Your task to perform on an android device: change text size in settings app Image 0: 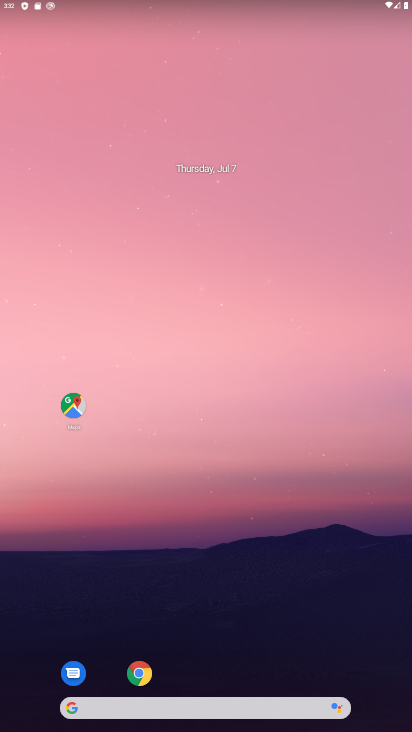
Step 0: drag from (225, 671) to (294, 83)
Your task to perform on an android device: change text size in settings app Image 1: 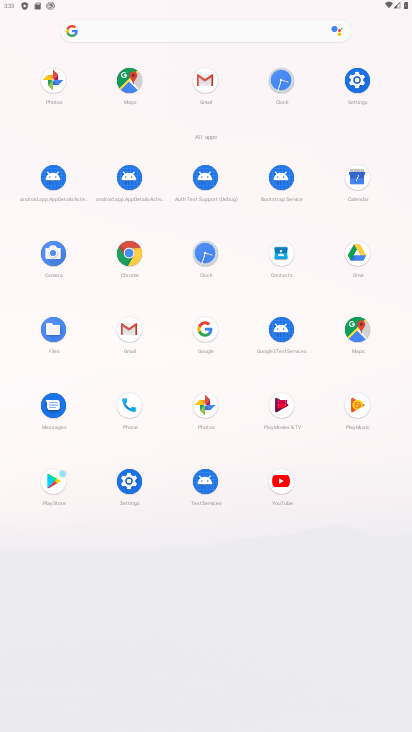
Step 1: click (355, 73)
Your task to perform on an android device: change text size in settings app Image 2: 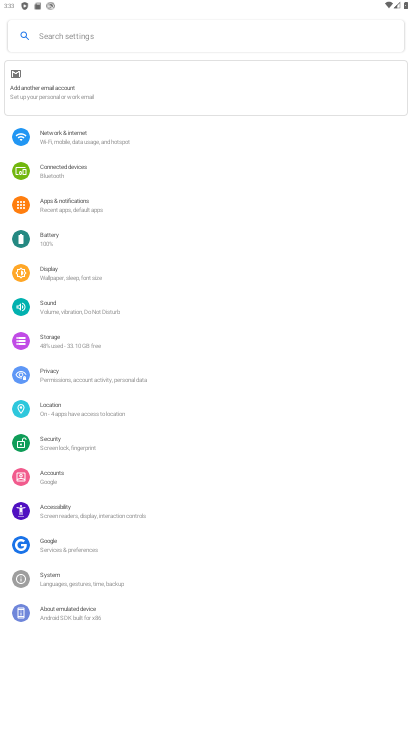
Step 2: click (60, 269)
Your task to perform on an android device: change text size in settings app Image 3: 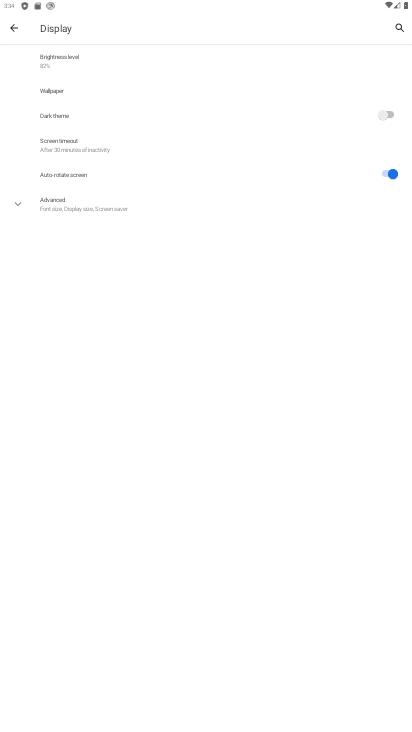
Step 3: click (76, 207)
Your task to perform on an android device: change text size in settings app Image 4: 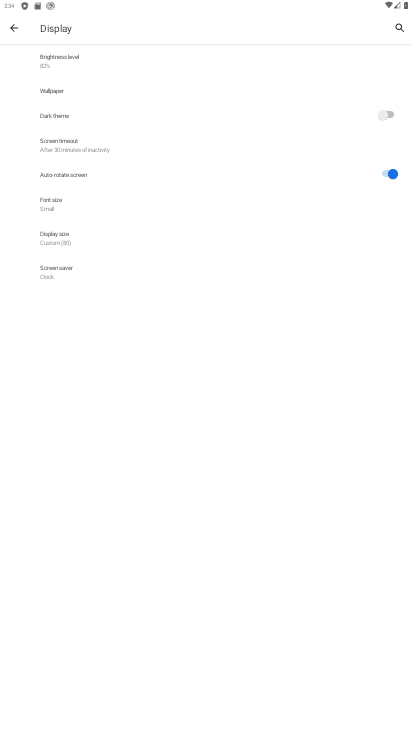
Step 4: click (68, 206)
Your task to perform on an android device: change text size in settings app Image 5: 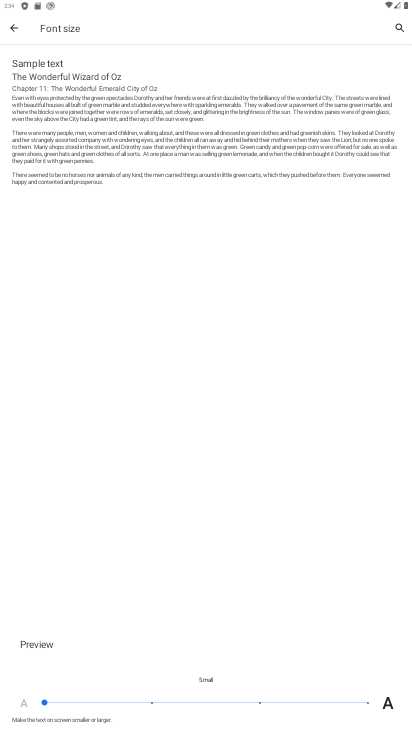
Step 5: click (360, 699)
Your task to perform on an android device: change text size in settings app Image 6: 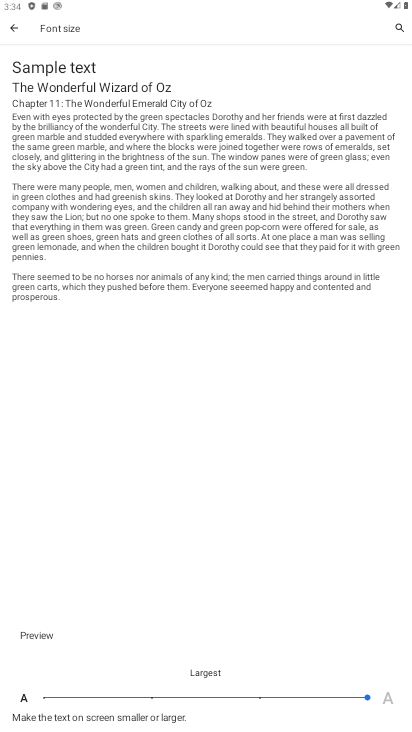
Step 6: task complete